Your task to perform on an android device: turn on javascript in the chrome app Image 0: 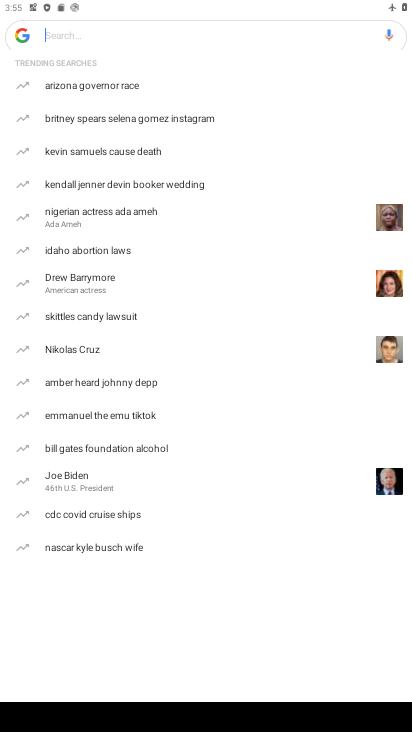
Step 0: press home button
Your task to perform on an android device: turn on javascript in the chrome app Image 1: 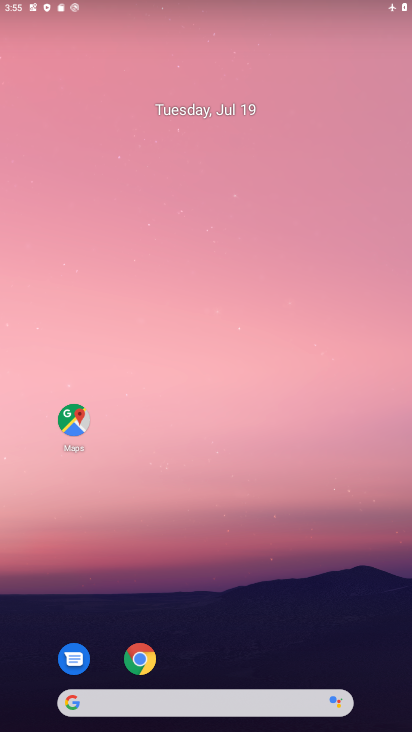
Step 1: drag from (300, 595) to (286, 56)
Your task to perform on an android device: turn on javascript in the chrome app Image 2: 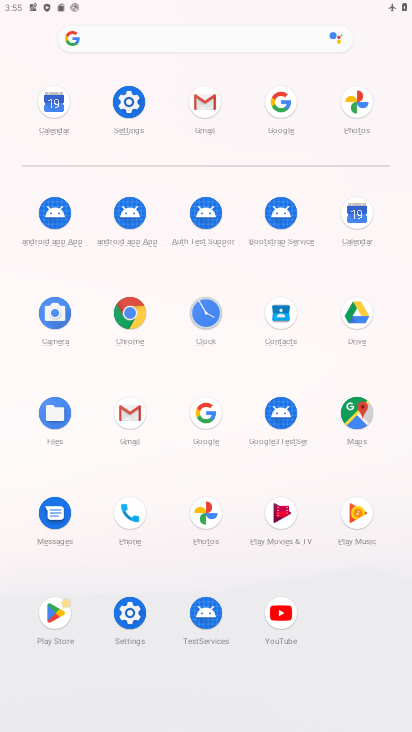
Step 2: click (127, 319)
Your task to perform on an android device: turn on javascript in the chrome app Image 3: 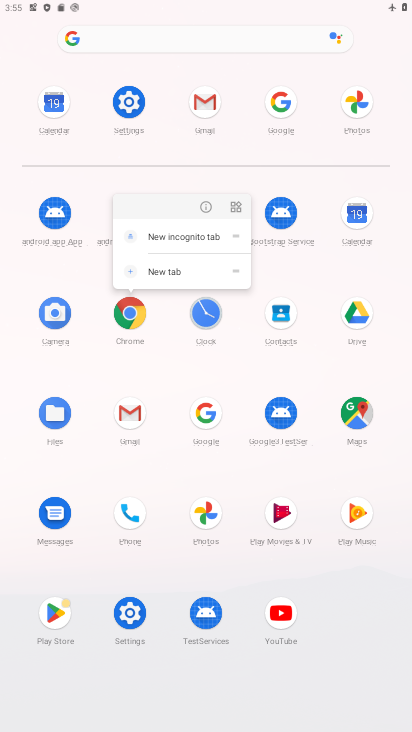
Step 3: click (127, 319)
Your task to perform on an android device: turn on javascript in the chrome app Image 4: 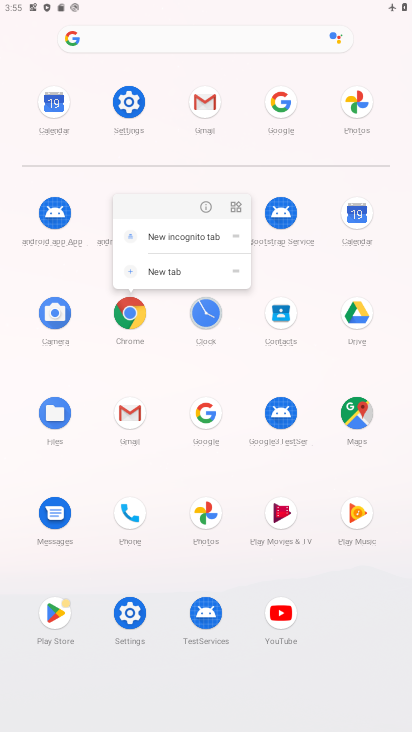
Step 4: click (127, 318)
Your task to perform on an android device: turn on javascript in the chrome app Image 5: 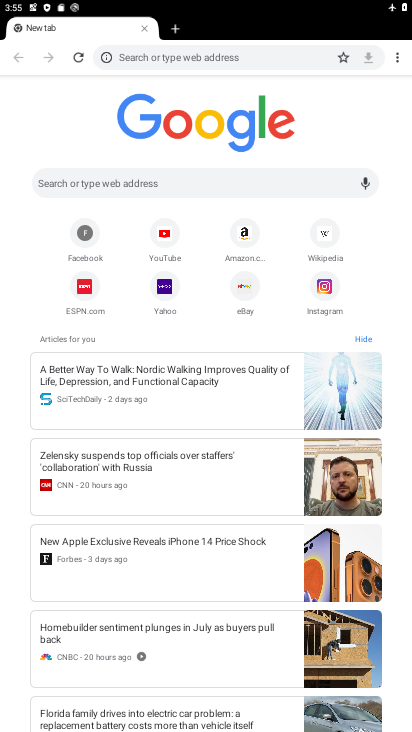
Step 5: drag from (397, 61) to (281, 268)
Your task to perform on an android device: turn on javascript in the chrome app Image 6: 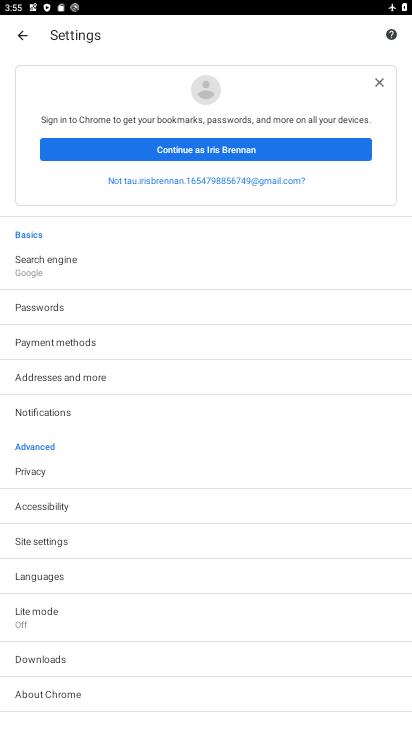
Step 6: drag from (245, 632) to (291, 210)
Your task to perform on an android device: turn on javascript in the chrome app Image 7: 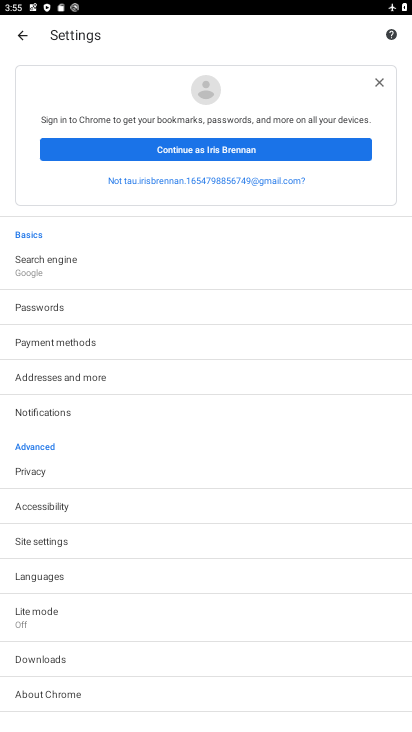
Step 7: click (65, 541)
Your task to perform on an android device: turn on javascript in the chrome app Image 8: 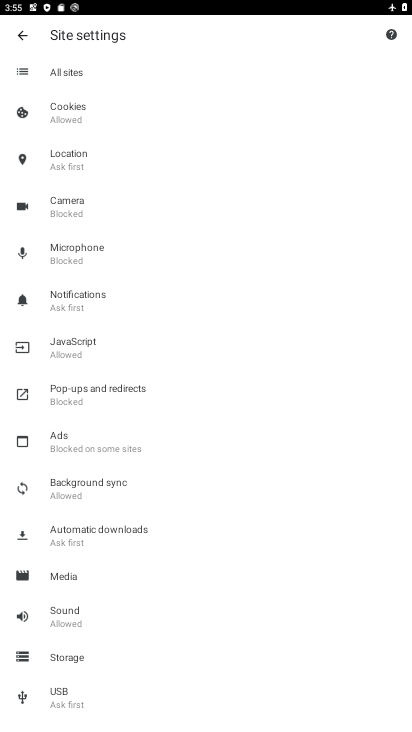
Step 8: click (87, 356)
Your task to perform on an android device: turn on javascript in the chrome app Image 9: 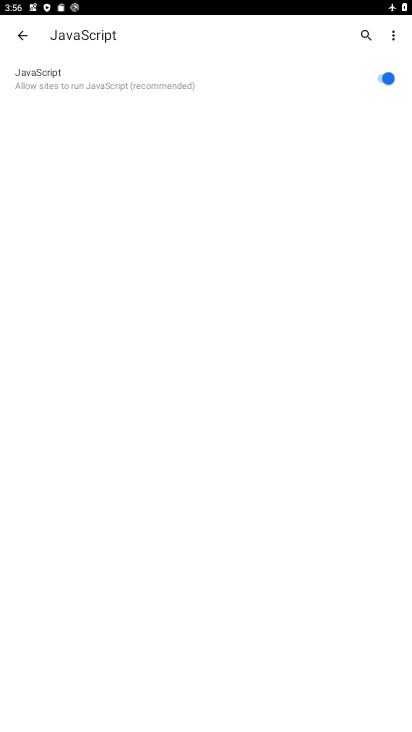
Step 9: task complete